Your task to perform on an android device: make emails show in primary in the gmail app Image 0: 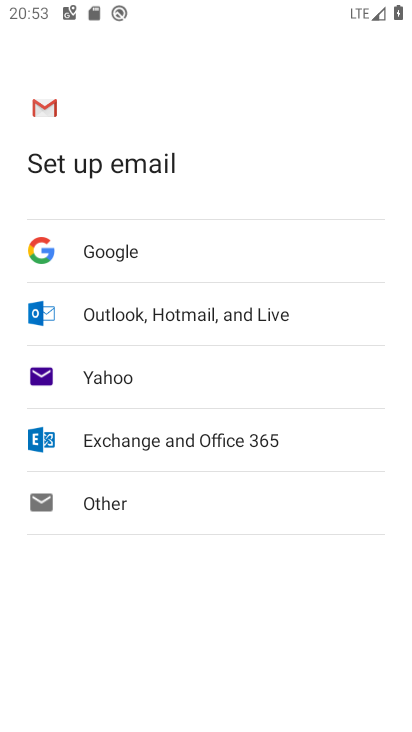
Step 0: press home button
Your task to perform on an android device: make emails show in primary in the gmail app Image 1: 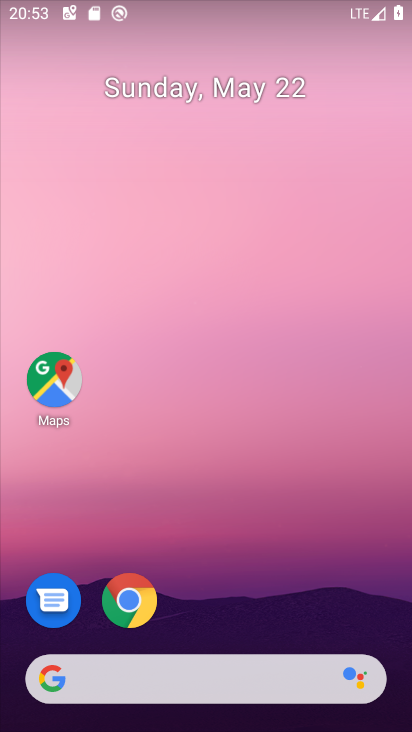
Step 1: drag from (154, 603) to (219, 319)
Your task to perform on an android device: make emails show in primary in the gmail app Image 2: 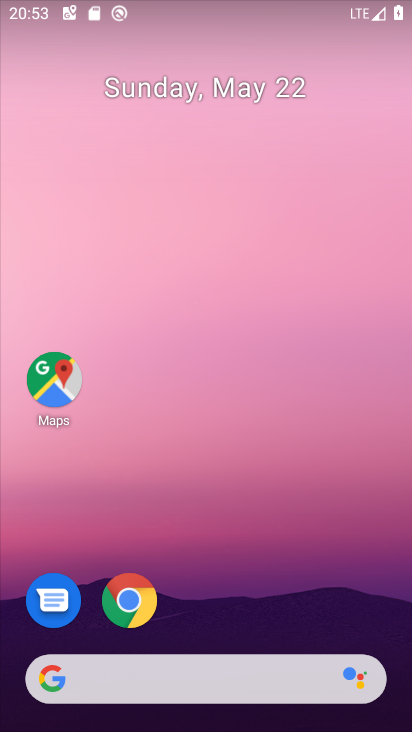
Step 2: drag from (189, 638) to (253, 180)
Your task to perform on an android device: make emails show in primary in the gmail app Image 3: 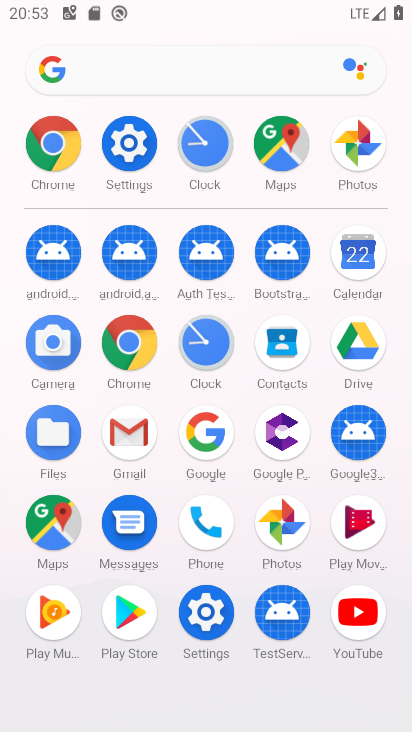
Step 3: click (141, 430)
Your task to perform on an android device: make emails show in primary in the gmail app Image 4: 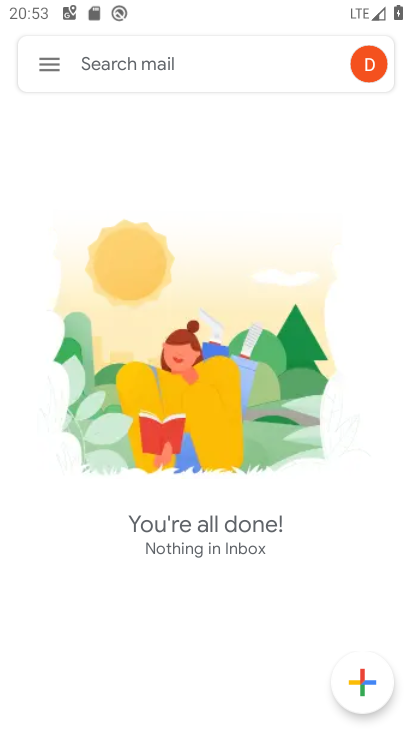
Step 4: click (56, 58)
Your task to perform on an android device: make emails show in primary in the gmail app Image 5: 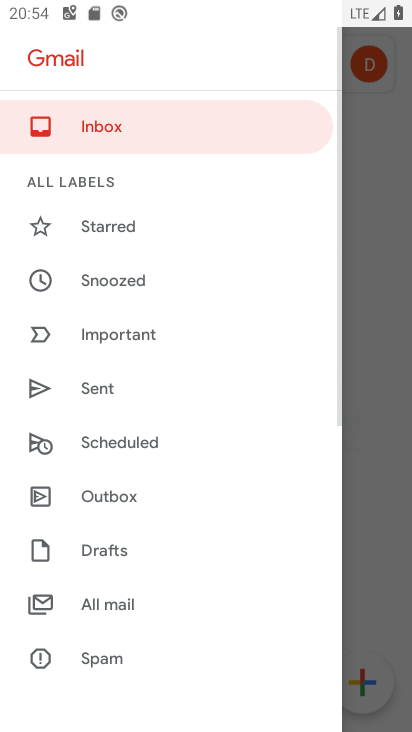
Step 5: drag from (102, 662) to (163, 351)
Your task to perform on an android device: make emails show in primary in the gmail app Image 6: 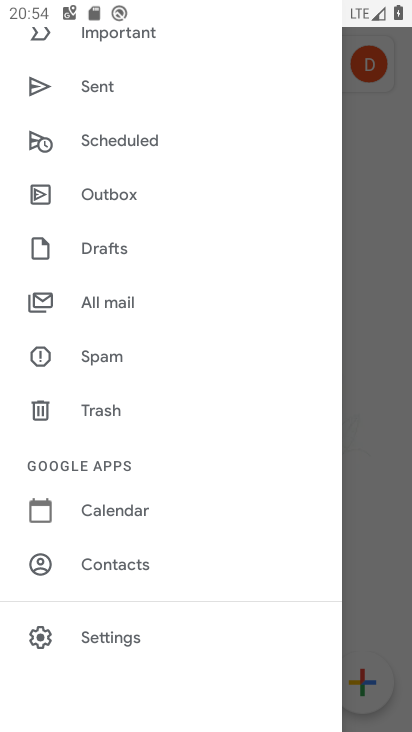
Step 6: click (107, 635)
Your task to perform on an android device: make emails show in primary in the gmail app Image 7: 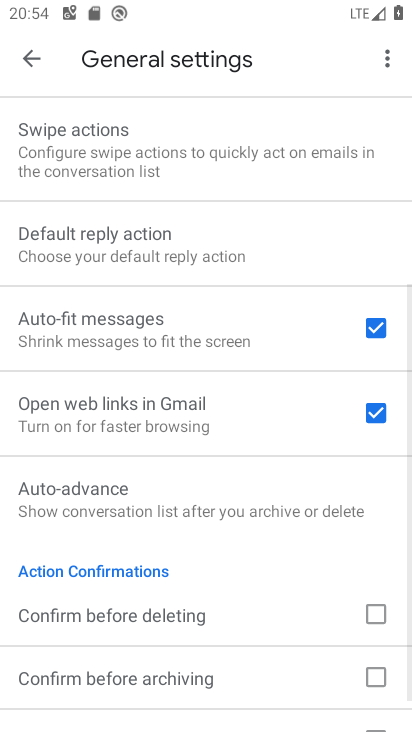
Step 7: click (20, 55)
Your task to perform on an android device: make emails show in primary in the gmail app Image 8: 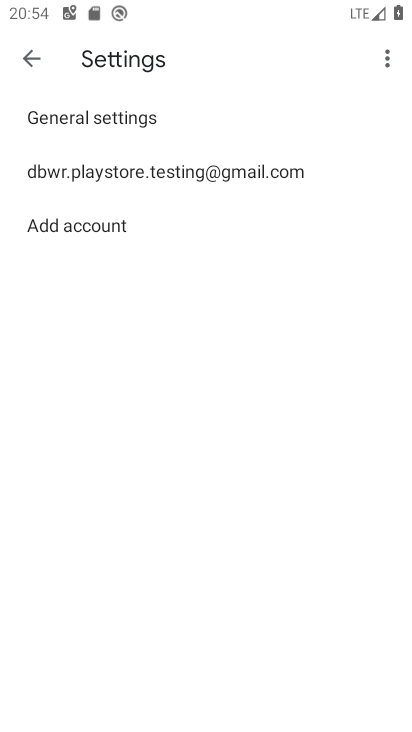
Step 8: click (115, 177)
Your task to perform on an android device: make emails show in primary in the gmail app Image 9: 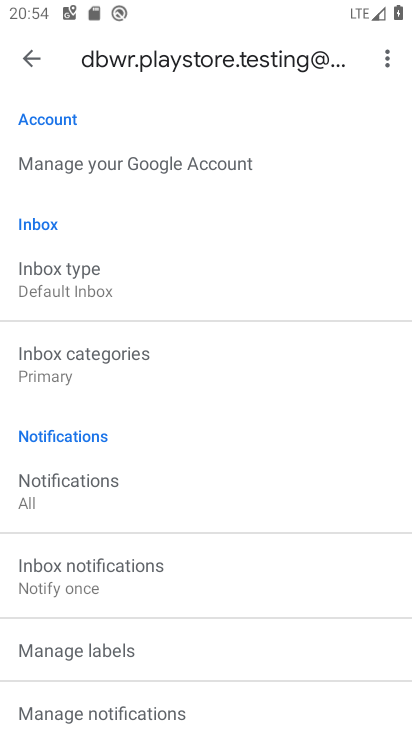
Step 9: click (70, 290)
Your task to perform on an android device: make emails show in primary in the gmail app Image 10: 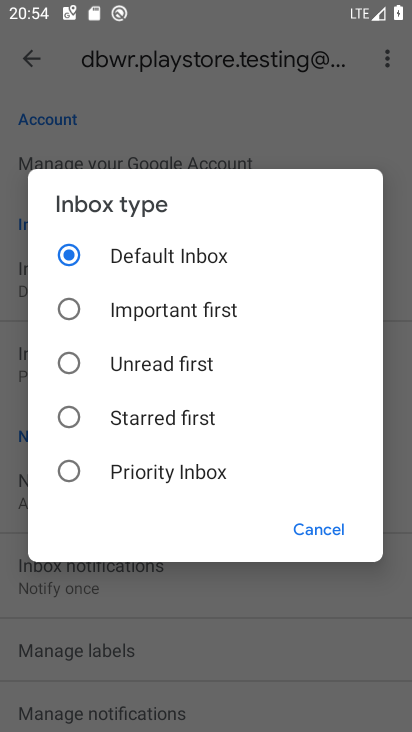
Step 10: click (323, 530)
Your task to perform on an android device: make emails show in primary in the gmail app Image 11: 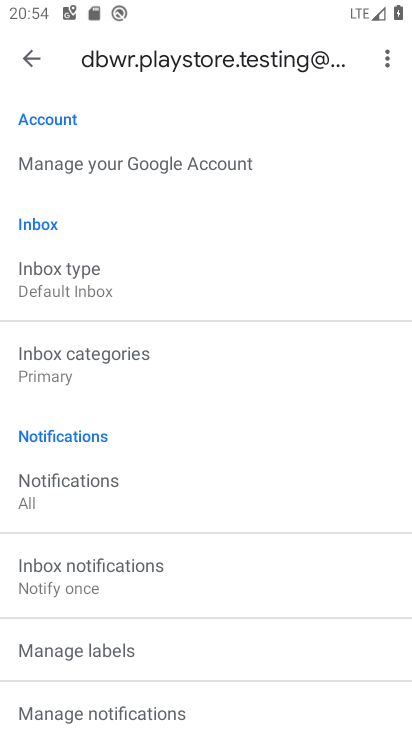
Step 11: task complete